Your task to perform on an android device: Open location settings Image 0: 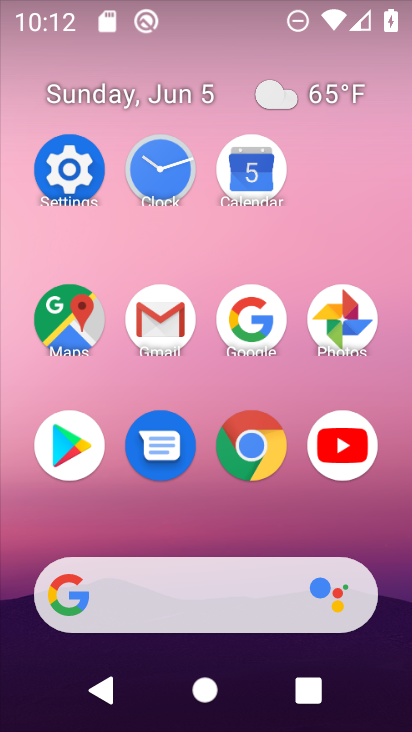
Step 0: click (91, 153)
Your task to perform on an android device: Open location settings Image 1: 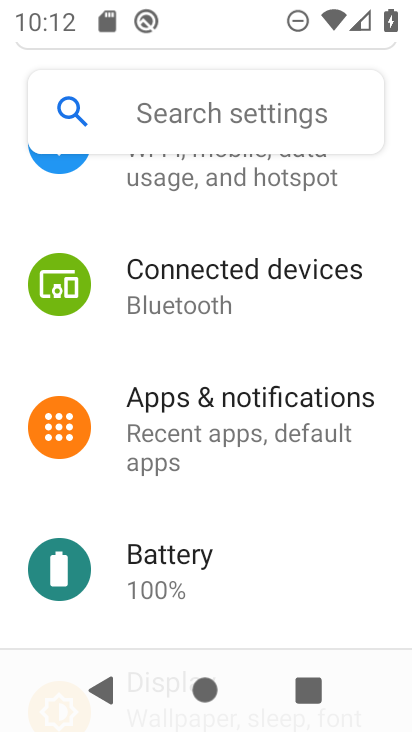
Step 1: drag from (322, 570) to (300, 245)
Your task to perform on an android device: Open location settings Image 2: 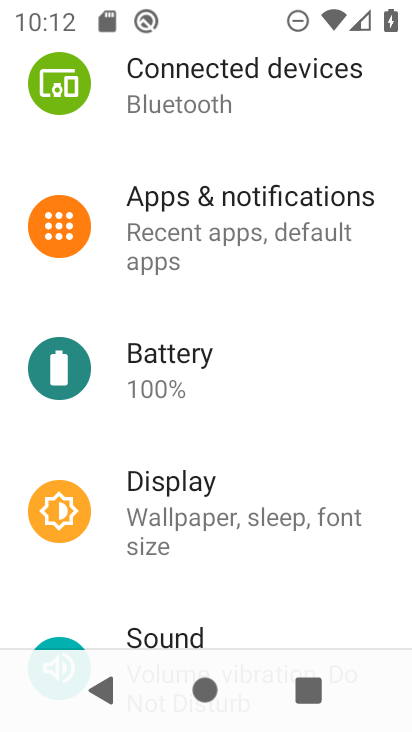
Step 2: drag from (255, 556) to (228, 225)
Your task to perform on an android device: Open location settings Image 3: 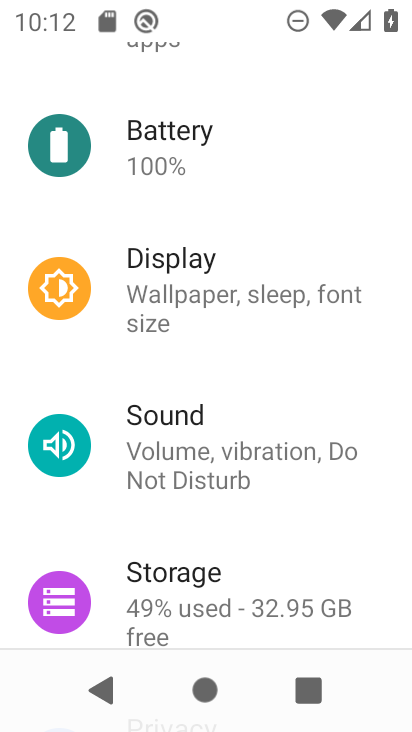
Step 3: drag from (278, 510) to (240, 123)
Your task to perform on an android device: Open location settings Image 4: 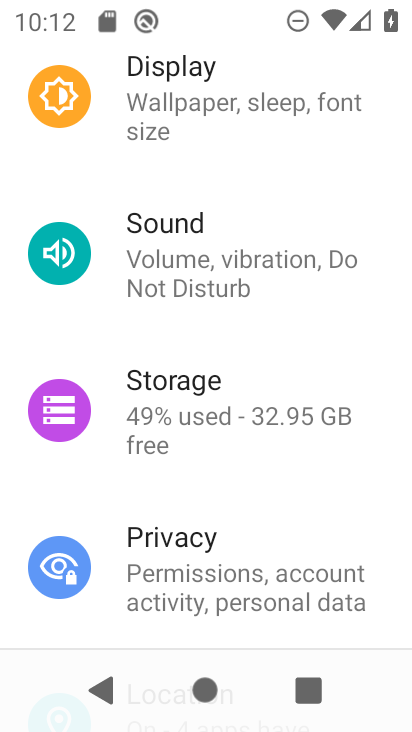
Step 4: drag from (264, 532) to (279, 151)
Your task to perform on an android device: Open location settings Image 5: 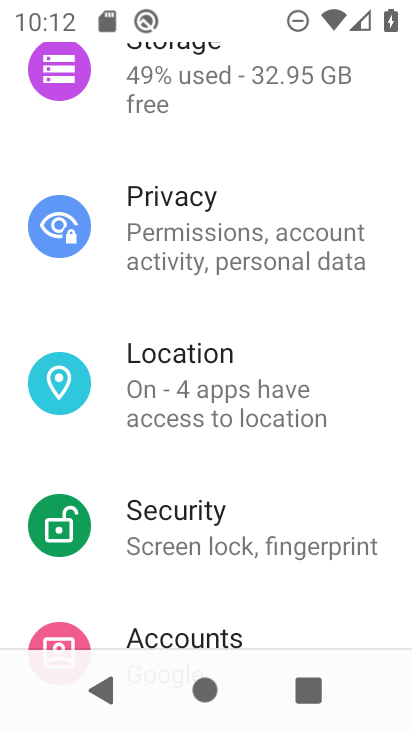
Step 5: click (254, 386)
Your task to perform on an android device: Open location settings Image 6: 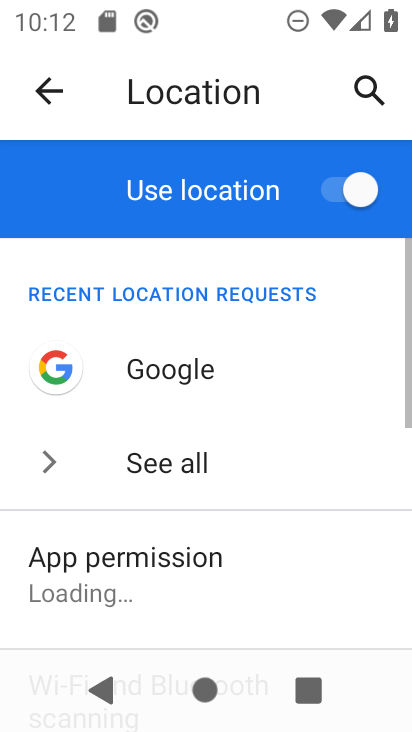
Step 6: task complete